Your task to perform on an android device: Open my contact list Image 0: 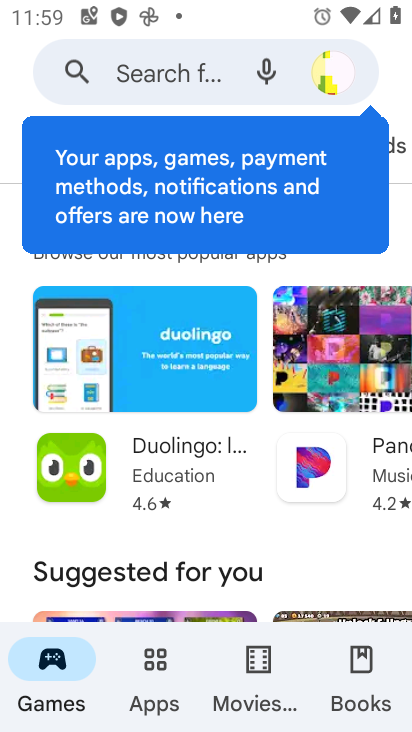
Step 0: press home button
Your task to perform on an android device: Open my contact list Image 1: 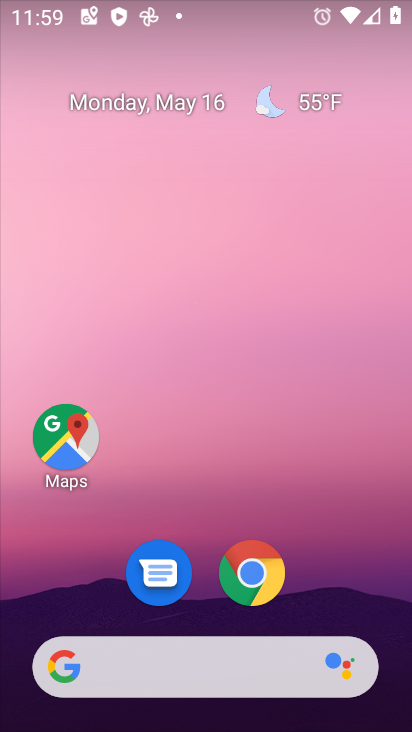
Step 1: drag from (363, 573) to (263, 186)
Your task to perform on an android device: Open my contact list Image 2: 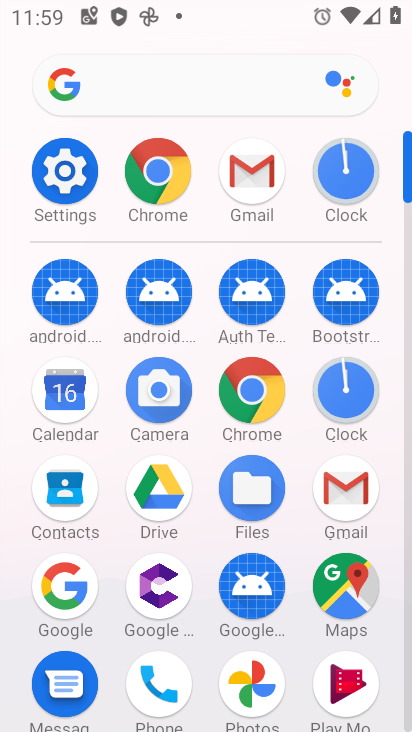
Step 2: click (79, 488)
Your task to perform on an android device: Open my contact list Image 3: 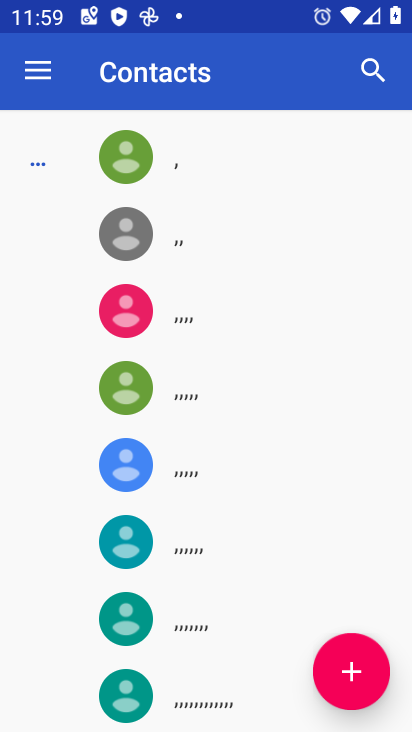
Step 3: click (48, 70)
Your task to perform on an android device: Open my contact list Image 4: 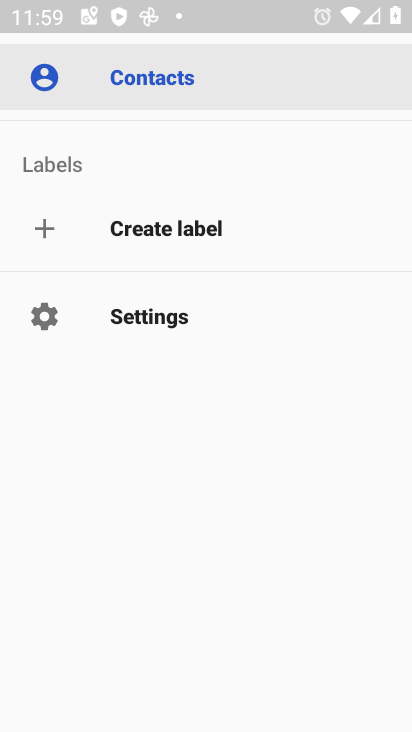
Step 4: click (160, 88)
Your task to perform on an android device: Open my contact list Image 5: 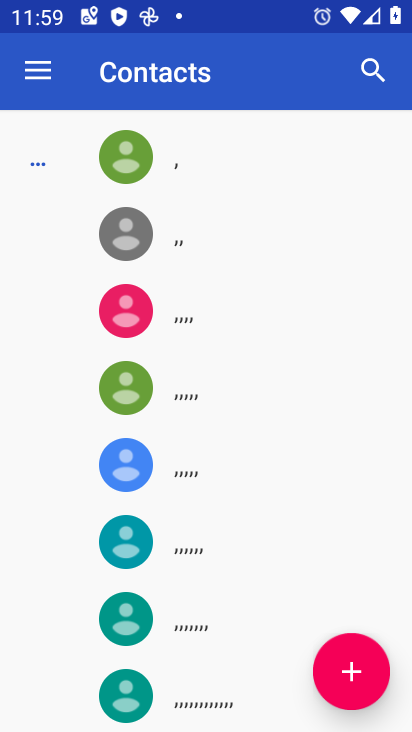
Step 5: task complete